Your task to perform on an android device: change the clock display to digital Image 0: 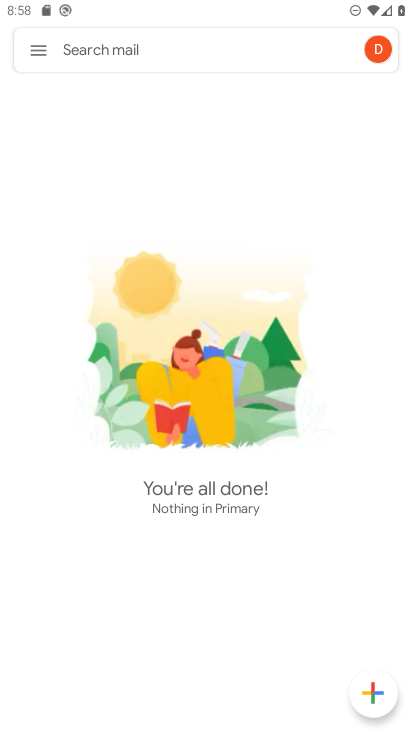
Step 0: press home button
Your task to perform on an android device: change the clock display to digital Image 1: 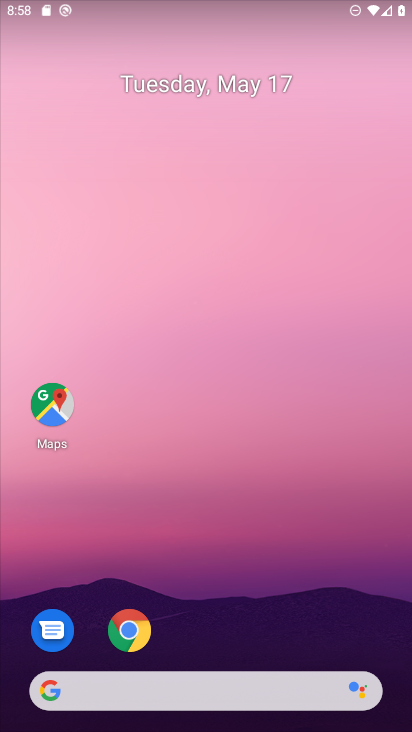
Step 1: drag from (327, 481) to (312, 85)
Your task to perform on an android device: change the clock display to digital Image 2: 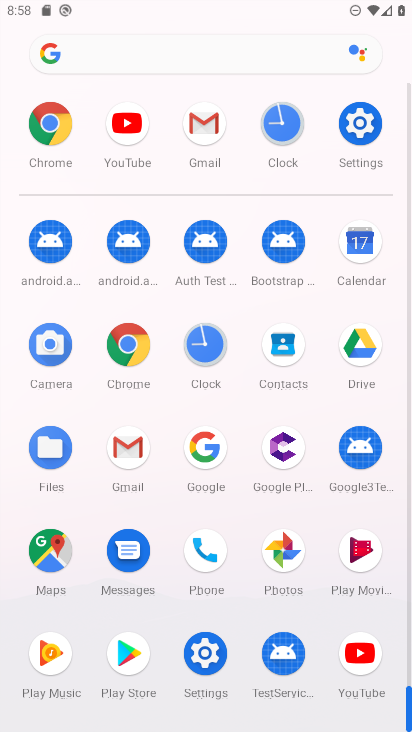
Step 2: click (196, 344)
Your task to perform on an android device: change the clock display to digital Image 3: 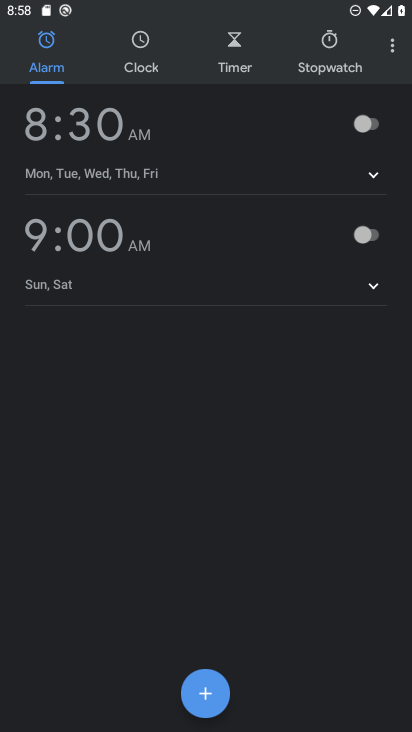
Step 3: click (390, 52)
Your task to perform on an android device: change the clock display to digital Image 4: 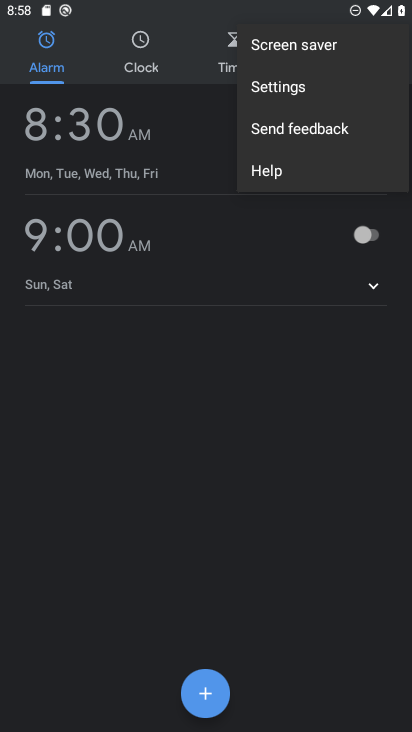
Step 4: click (277, 86)
Your task to perform on an android device: change the clock display to digital Image 5: 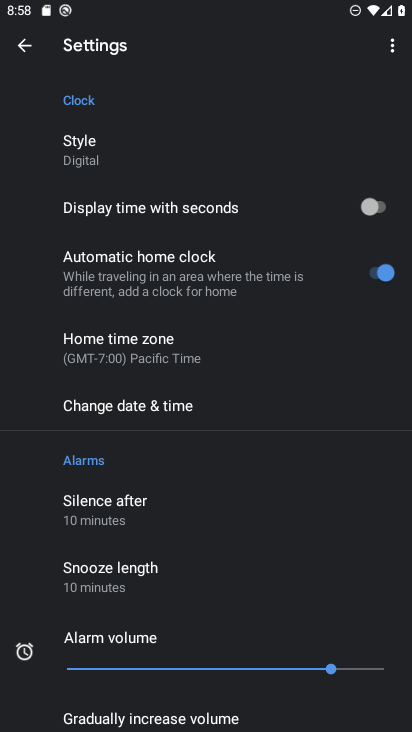
Step 5: task complete